Your task to perform on an android device: add a label to a message in the gmail app Image 0: 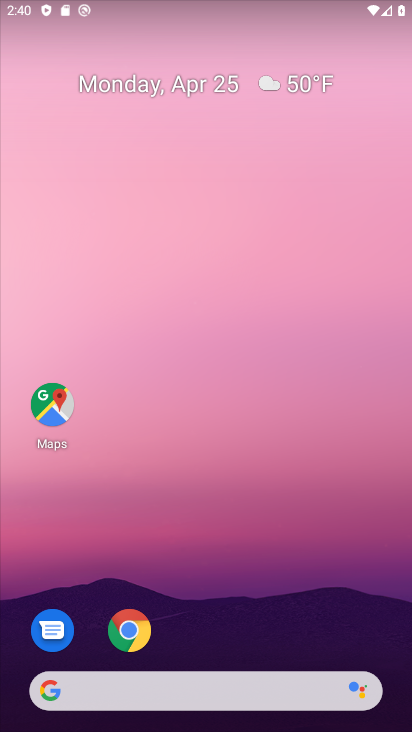
Step 0: drag from (232, 577) to (41, 78)
Your task to perform on an android device: add a label to a message in the gmail app Image 1: 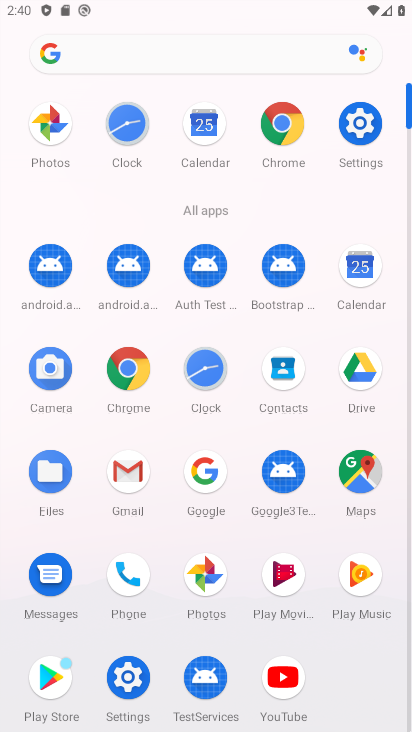
Step 1: click (129, 474)
Your task to perform on an android device: add a label to a message in the gmail app Image 2: 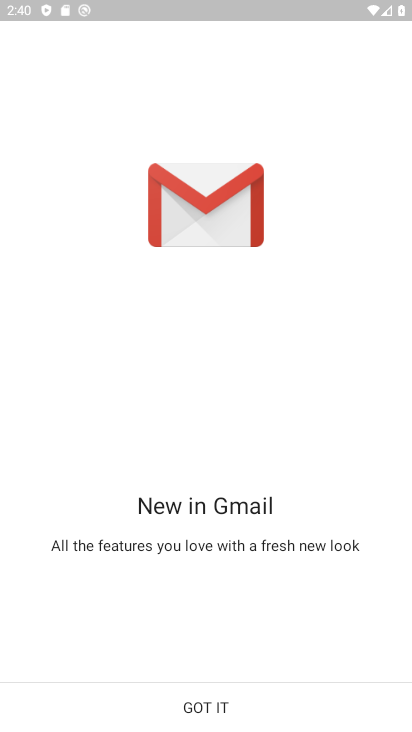
Step 2: click (194, 710)
Your task to perform on an android device: add a label to a message in the gmail app Image 3: 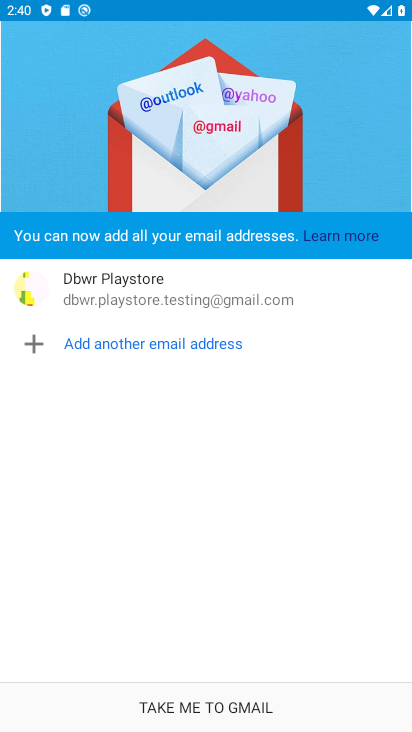
Step 3: click (205, 705)
Your task to perform on an android device: add a label to a message in the gmail app Image 4: 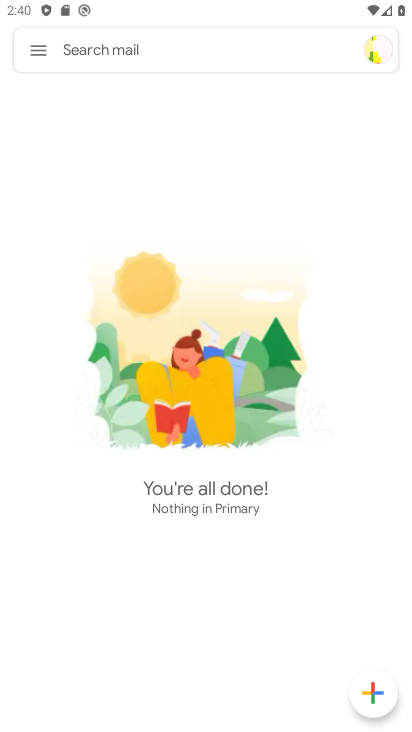
Step 4: click (39, 54)
Your task to perform on an android device: add a label to a message in the gmail app Image 5: 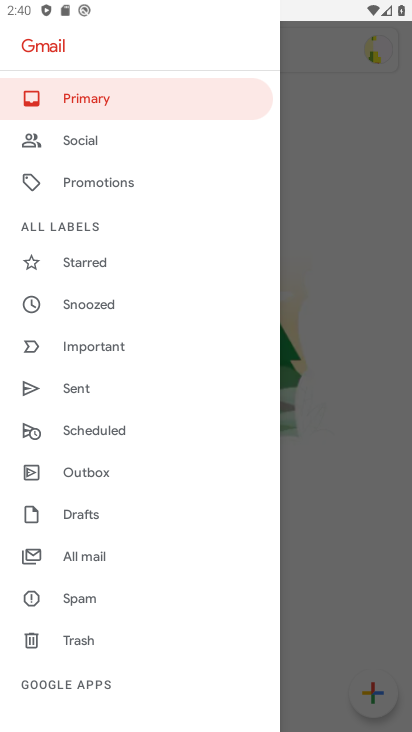
Step 5: drag from (72, 630) to (79, 481)
Your task to perform on an android device: add a label to a message in the gmail app Image 6: 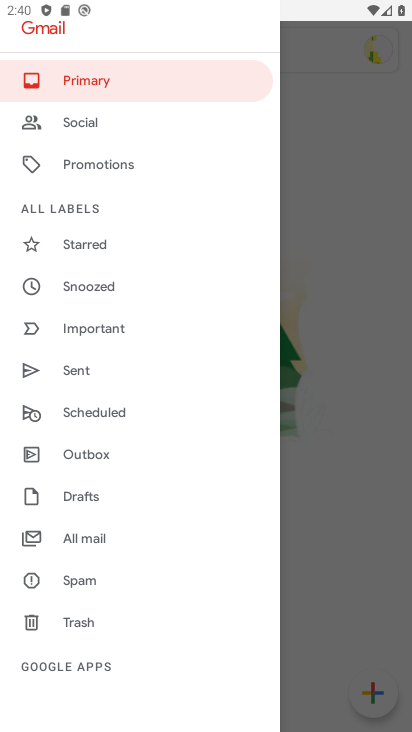
Step 6: click (335, 430)
Your task to perform on an android device: add a label to a message in the gmail app Image 7: 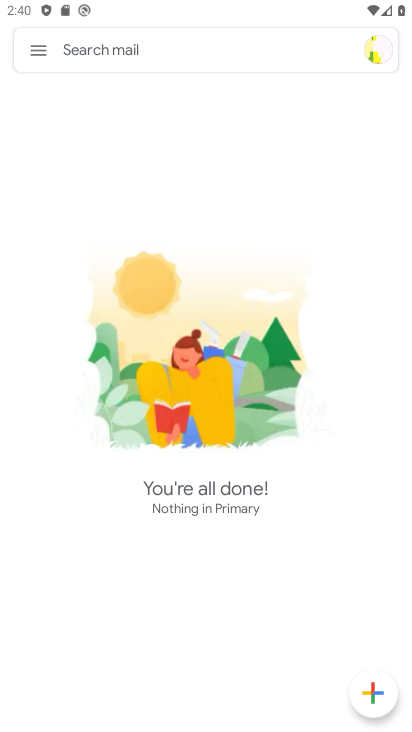
Step 7: task complete